Your task to perform on an android device: Open notification settings Image 0: 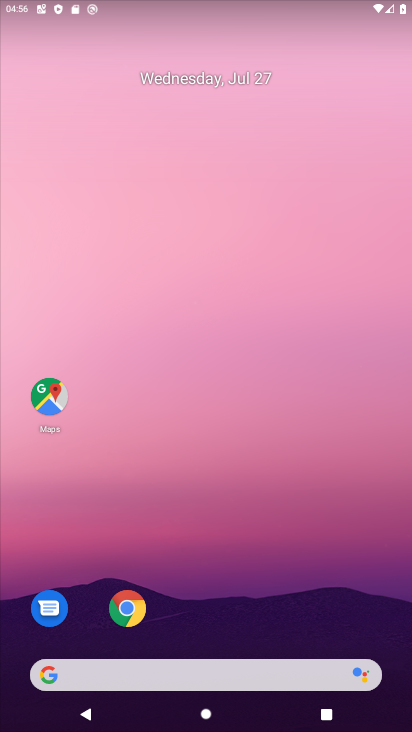
Step 0: press home button
Your task to perform on an android device: Open notification settings Image 1: 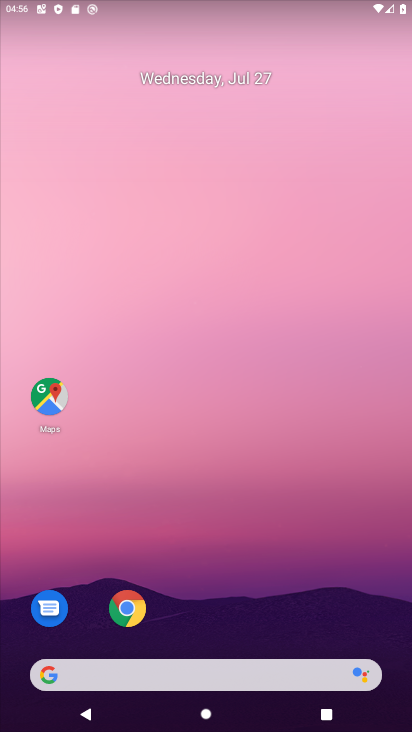
Step 1: drag from (240, 598) to (371, 145)
Your task to perform on an android device: Open notification settings Image 2: 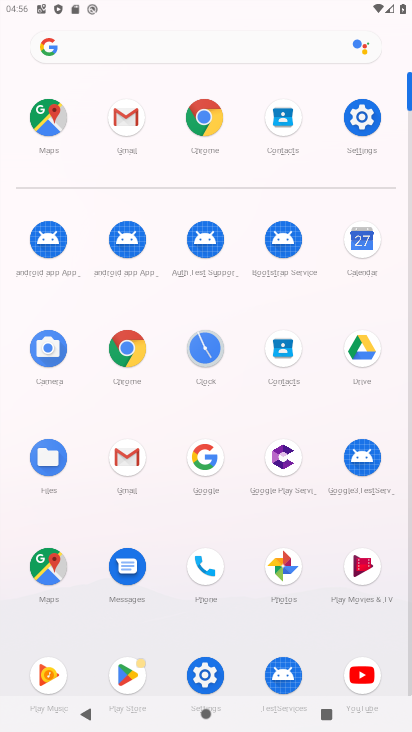
Step 2: click (358, 127)
Your task to perform on an android device: Open notification settings Image 3: 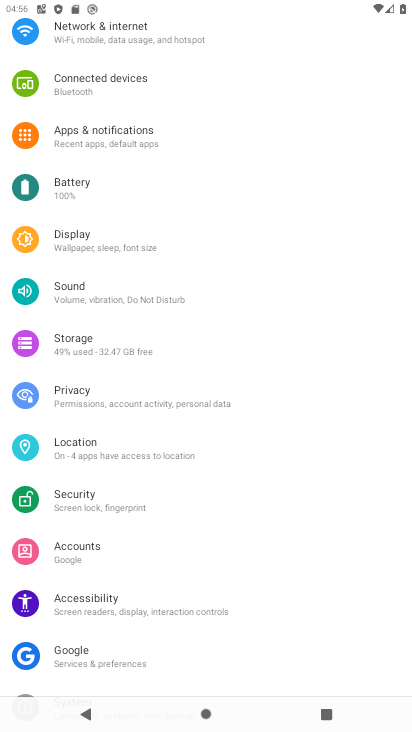
Step 3: click (358, 127)
Your task to perform on an android device: Open notification settings Image 4: 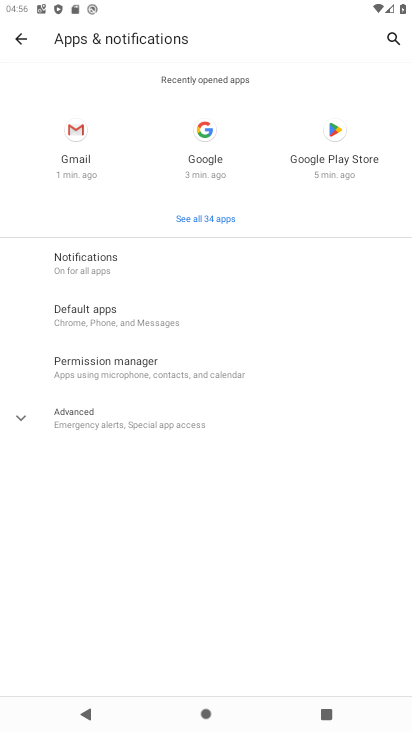
Step 4: click (106, 256)
Your task to perform on an android device: Open notification settings Image 5: 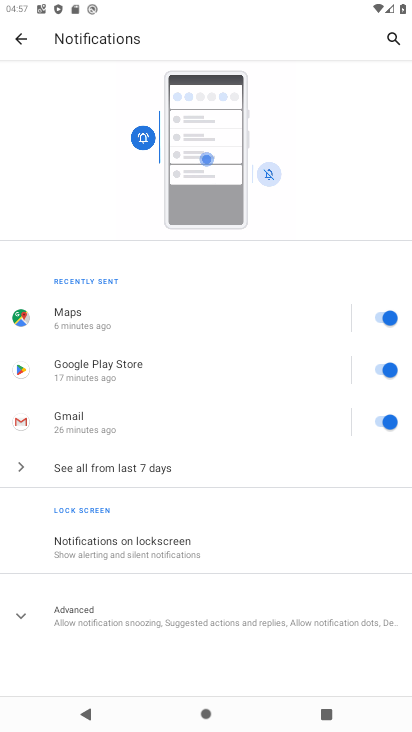
Step 5: task complete